Your task to perform on an android device: Open the stopwatch Image 0: 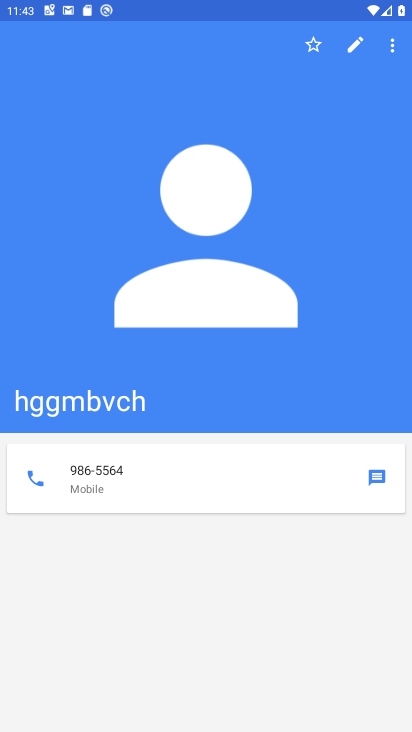
Step 0: press home button
Your task to perform on an android device: Open the stopwatch Image 1: 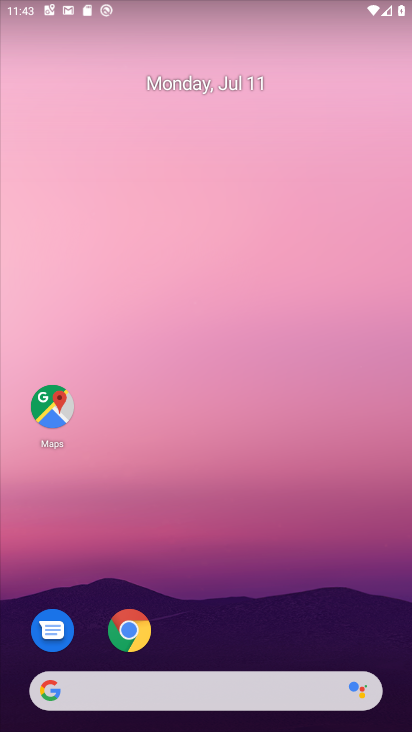
Step 1: drag from (226, 593) to (276, 144)
Your task to perform on an android device: Open the stopwatch Image 2: 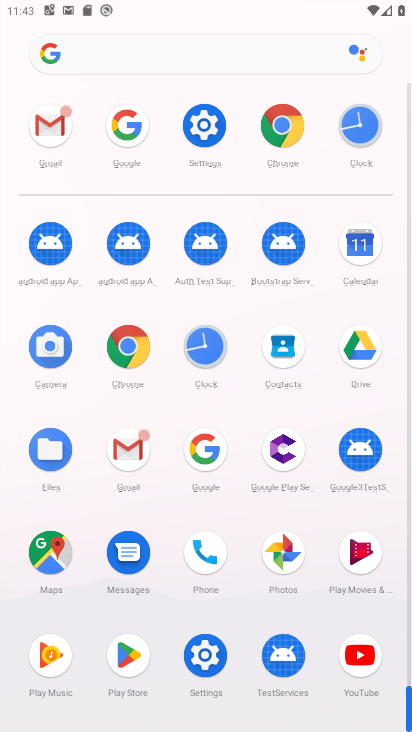
Step 2: click (199, 352)
Your task to perform on an android device: Open the stopwatch Image 3: 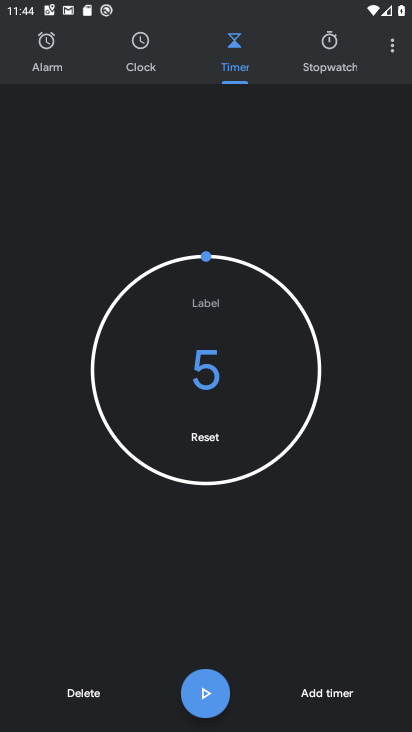
Step 3: click (324, 63)
Your task to perform on an android device: Open the stopwatch Image 4: 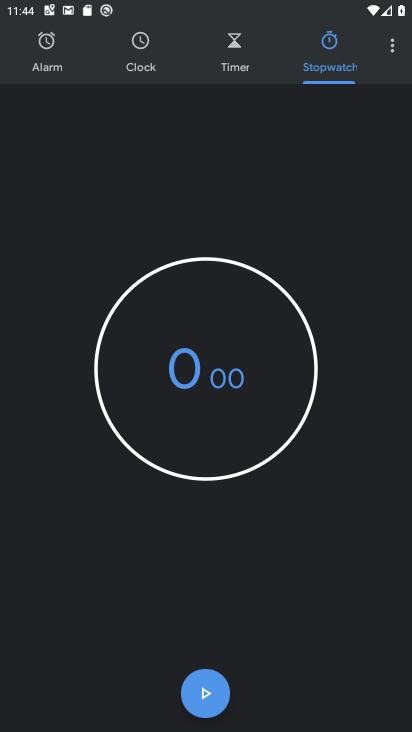
Step 4: task complete